Your task to perform on an android device: set default search engine in the chrome app Image 0: 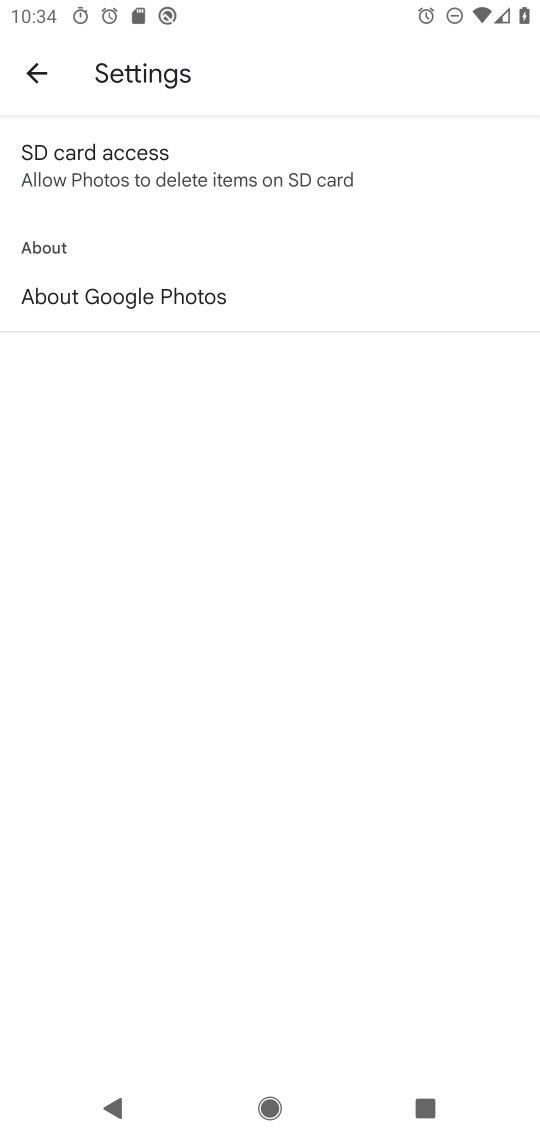
Step 0: press home button
Your task to perform on an android device: set default search engine in the chrome app Image 1: 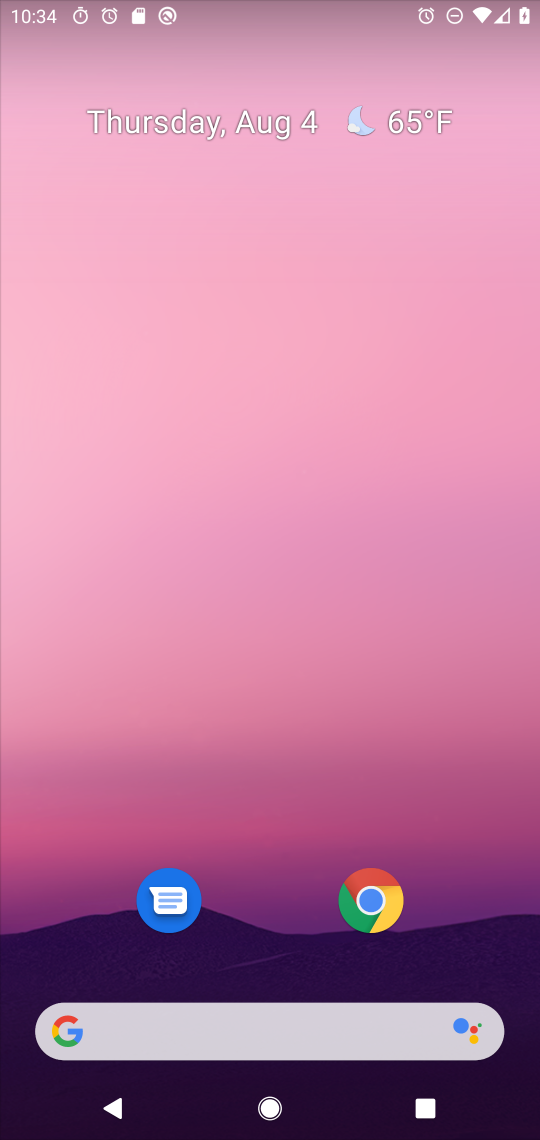
Step 1: click (372, 904)
Your task to perform on an android device: set default search engine in the chrome app Image 2: 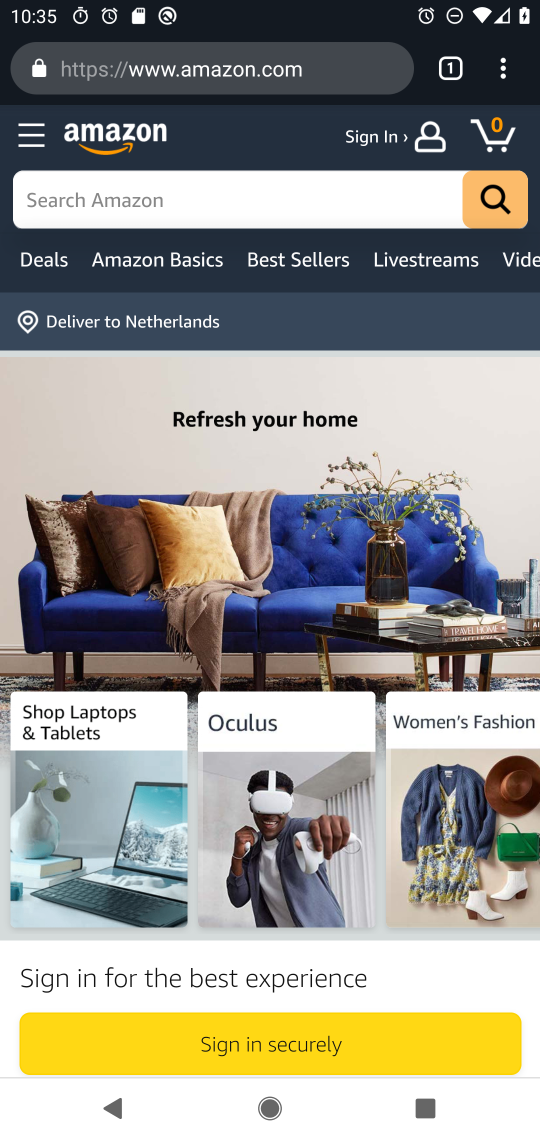
Step 2: drag from (507, 70) to (288, 899)
Your task to perform on an android device: set default search engine in the chrome app Image 3: 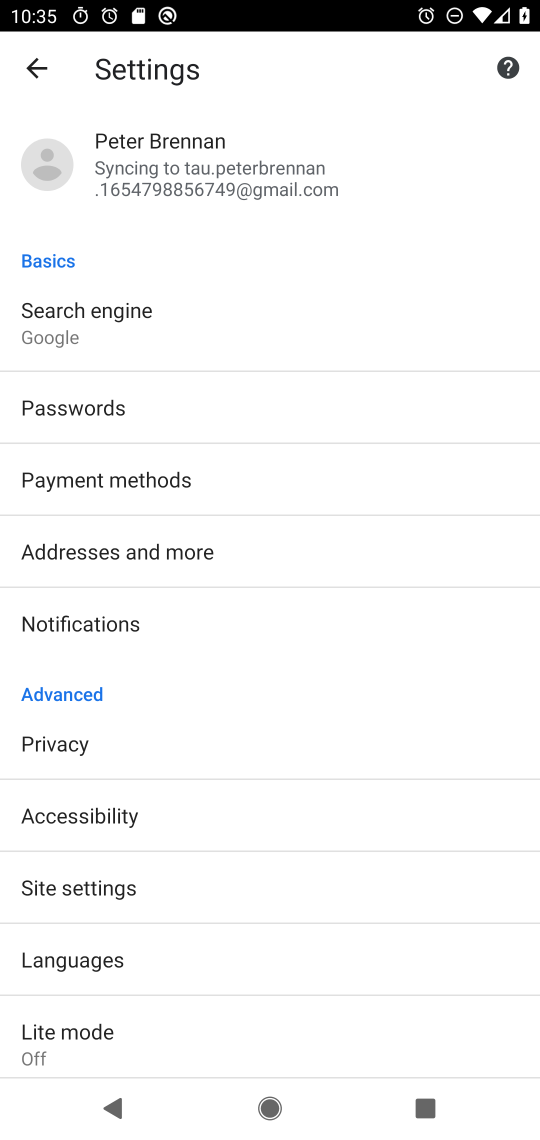
Step 3: click (99, 333)
Your task to perform on an android device: set default search engine in the chrome app Image 4: 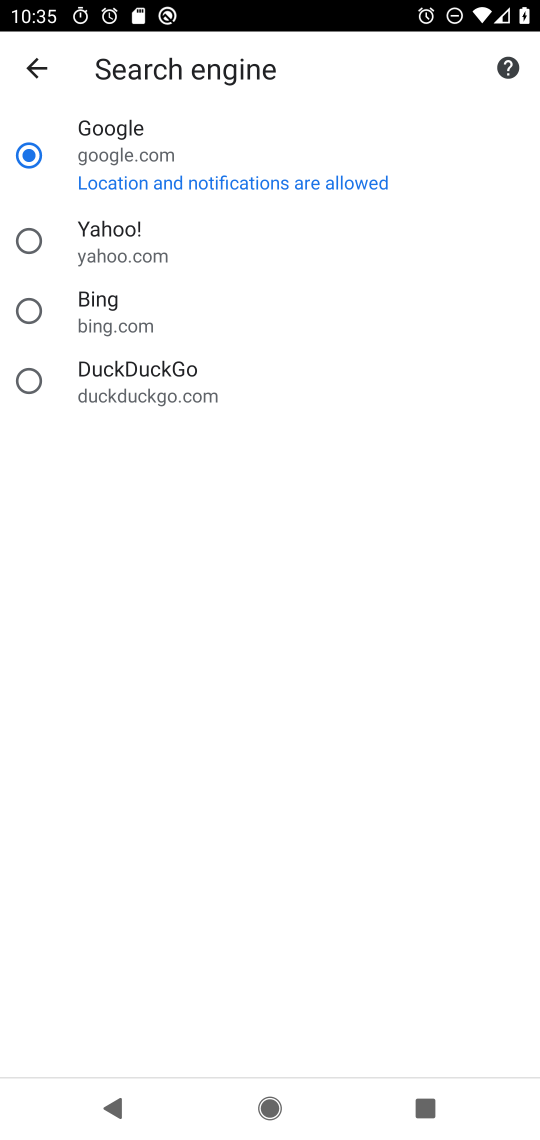
Step 4: click (33, 147)
Your task to perform on an android device: set default search engine in the chrome app Image 5: 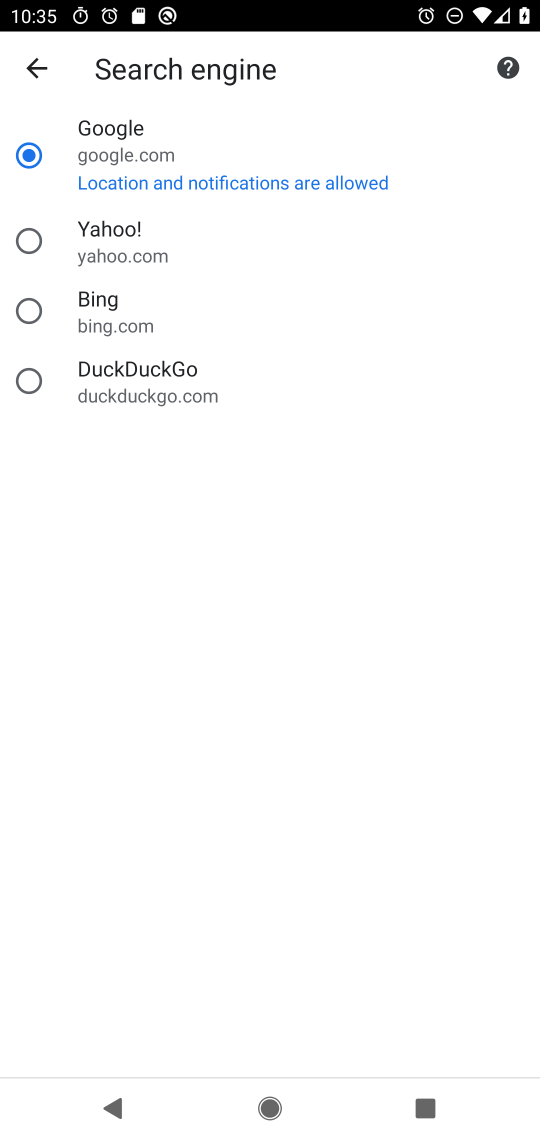
Step 5: task complete